Your task to perform on an android device: choose inbox layout in the gmail app Image 0: 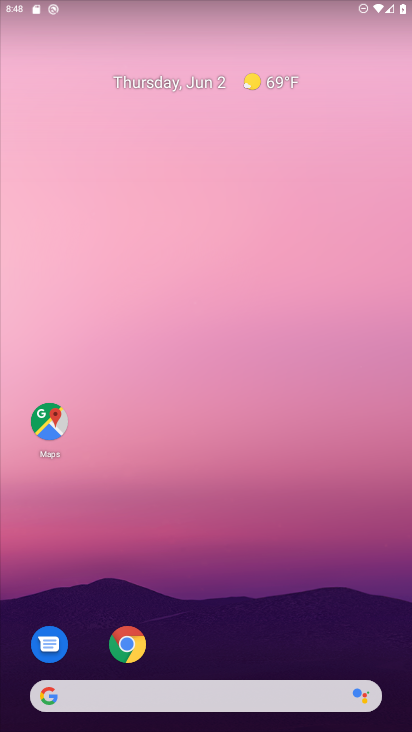
Step 0: drag from (224, 446) to (143, 15)
Your task to perform on an android device: choose inbox layout in the gmail app Image 1: 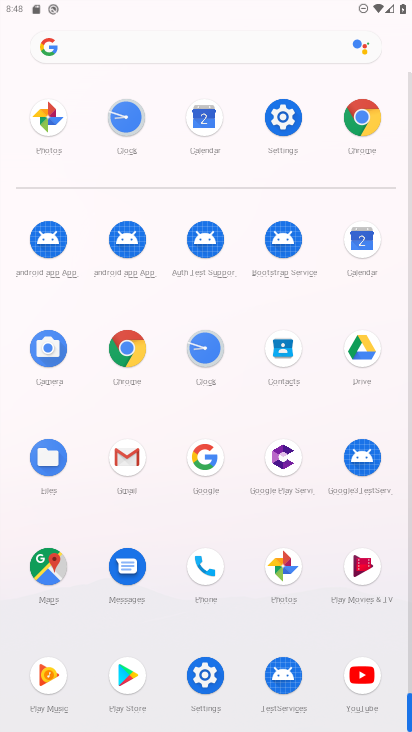
Step 1: drag from (7, 580) to (3, 207)
Your task to perform on an android device: choose inbox layout in the gmail app Image 2: 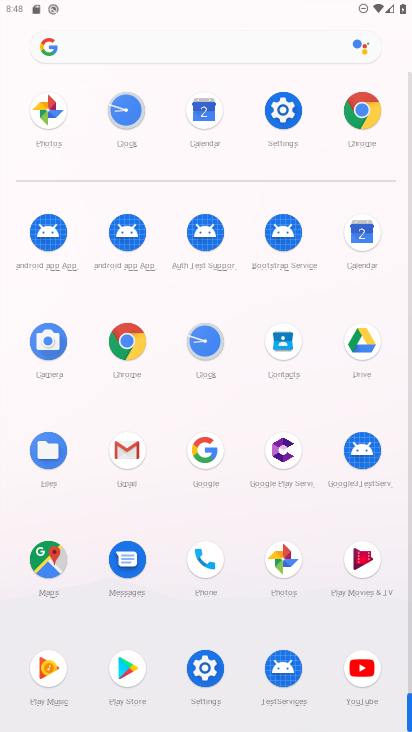
Step 2: drag from (9, 642) to (27, 288)
Your task to perform on an android device: choose inbox layout in the gmail app Image 3: 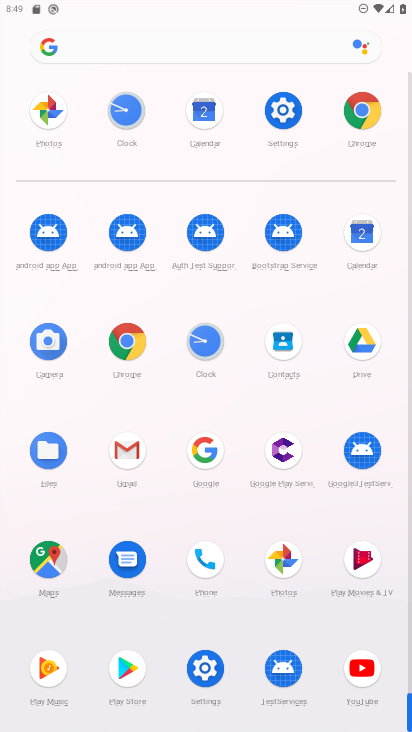
Step 3: click (121, 444)
Your task to perform on an android device: choose inbox layout in the gmail app Image 4: 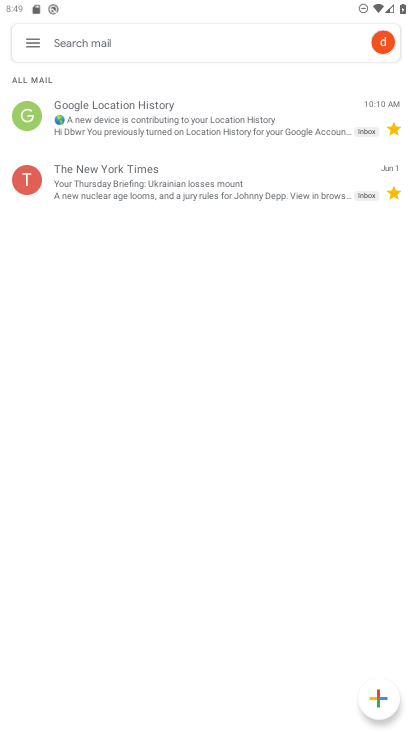
Step 4: click (29, 52)
Your task to perform on an android device: choose inbox layout in the gmail app Image 5: 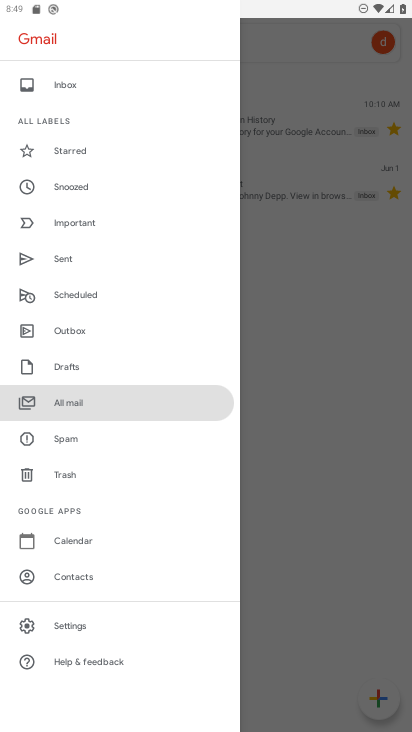
Step 5: click (81, 623)
Your task to perform on an android device: choose inbox layout in the gmail app Image 6: 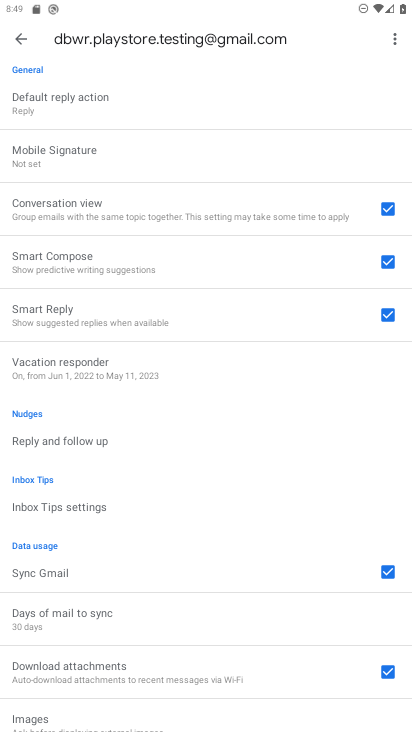
Step 6: click (23, 37)
Your task to perform on an android device: choose inbox layout in the gmail app Image 7: 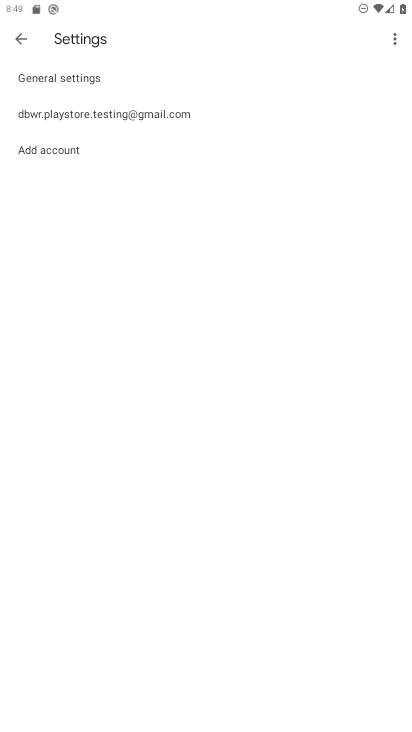
Step 7: click (31, 46)
Your task to perform on an android device: choose inbox layout in the gmail app Image 8: 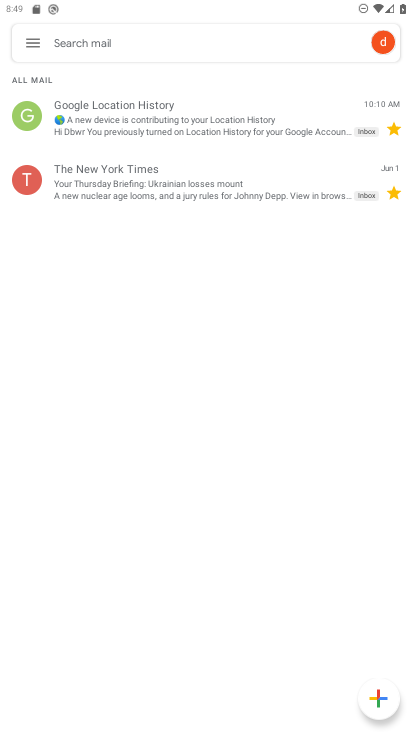
Step 8: click (32, 45)
Your task to perform on an android device: choose inbox layout in the gmail app Image 9: 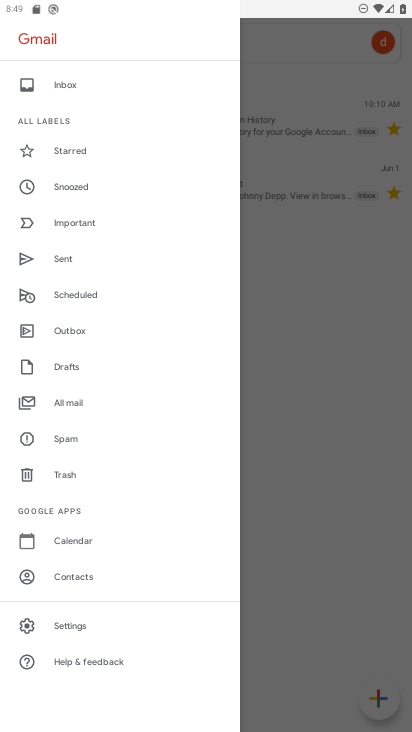
Step 9: click (71, 624)
Your task to perform on an android device: choose inbox layout in the gmail app Image 10: 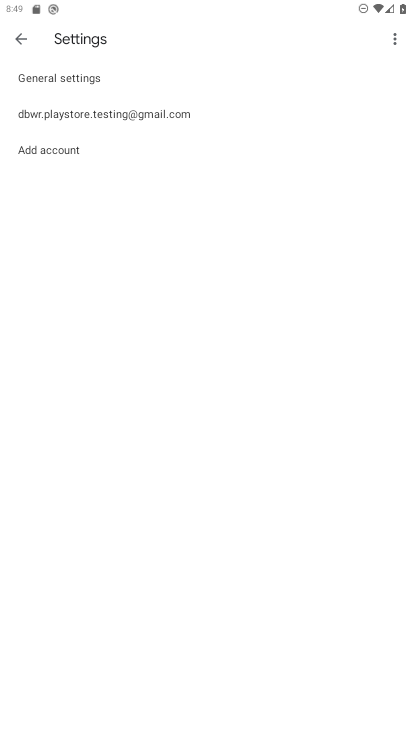
Step 10: click (80, 113)
Your task to perform on an android device: choose inbox layout in the gmail app Image 11: 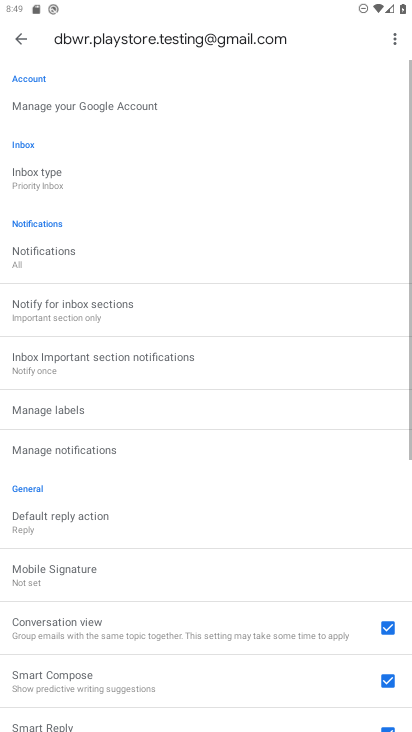
Step 11: click (71, 187)
Your task to perform on an android device: choose inbox layout in the gmail app Image 12: 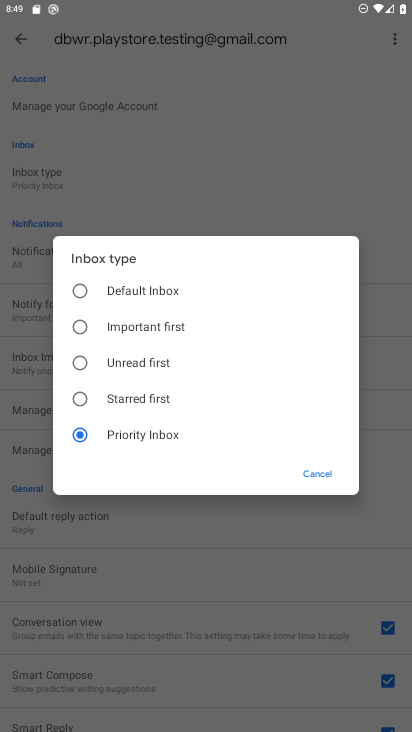
Step 12: click (148, 291)
Your task to perform on an android device: choose inbox layout in the gmail app Image 13: 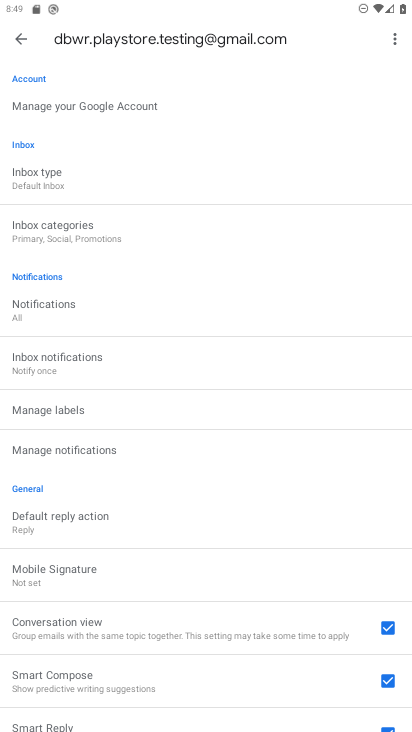
Step 13: task complete